Your task to perform on an android device: find photos in the google photos app Image 0: 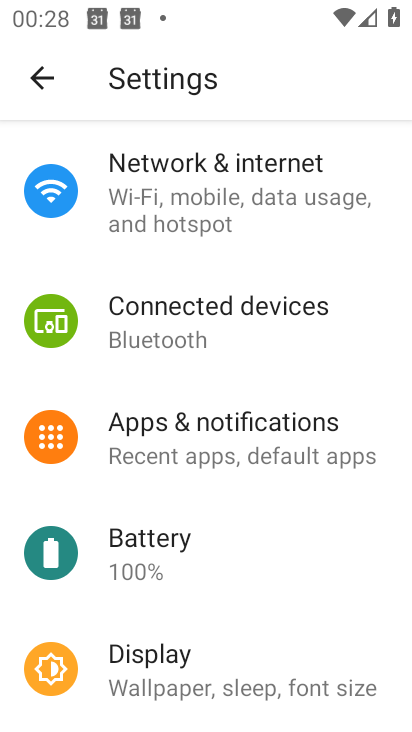
Step 0: press home button
Your task to perform on an android device: find photos in the google photos app Image 1: 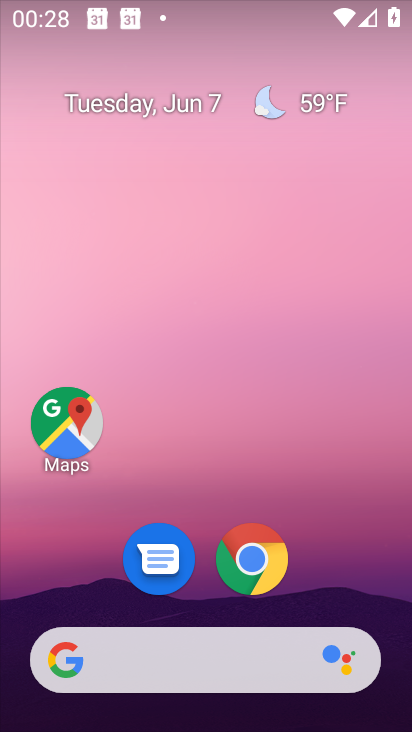
Step 1: drag from (310, 355) to (303, 3)
Your task to perform on an android device: find photos in the google photos app Image 2: 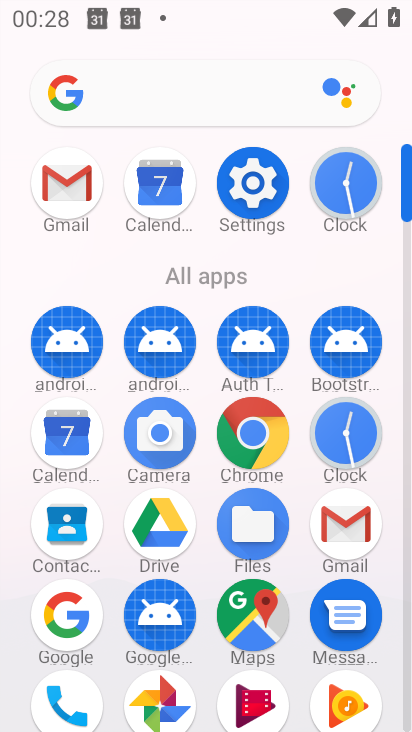
Step 2: click (172, 713)
Your task to perform on an android device: find photos in the google photos app Image 3: 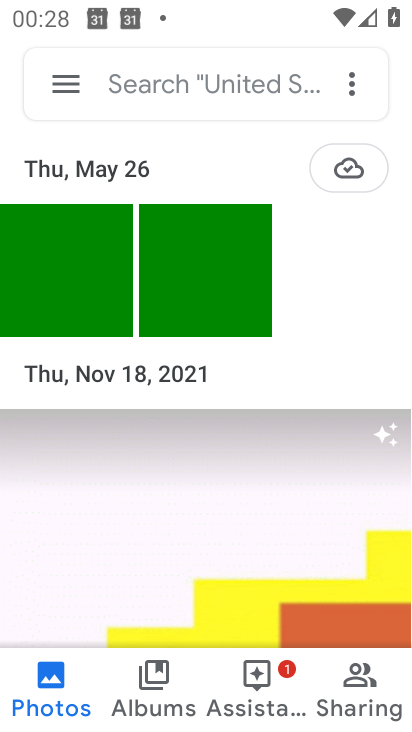
Step 3: task complete